Your task to perform on an android device: Open location settings Image 0: 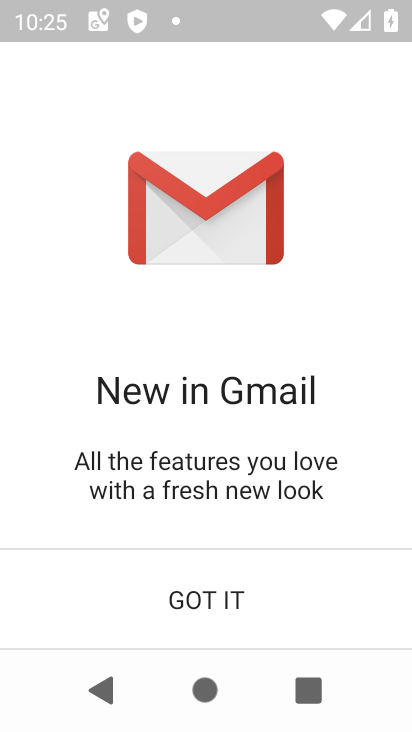
Step 0: press back button
Your task to perform on an android device: Open location settings Image 1: 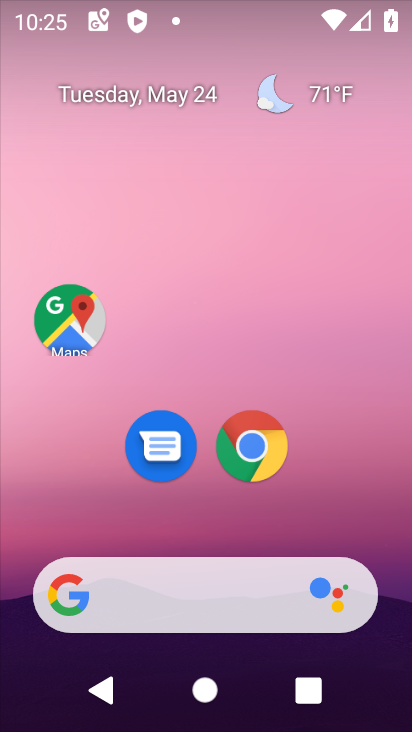
Step 1: drag from (335, 509) to (205, 183)
Your task to perform on an android device: Open location settings Image 2: 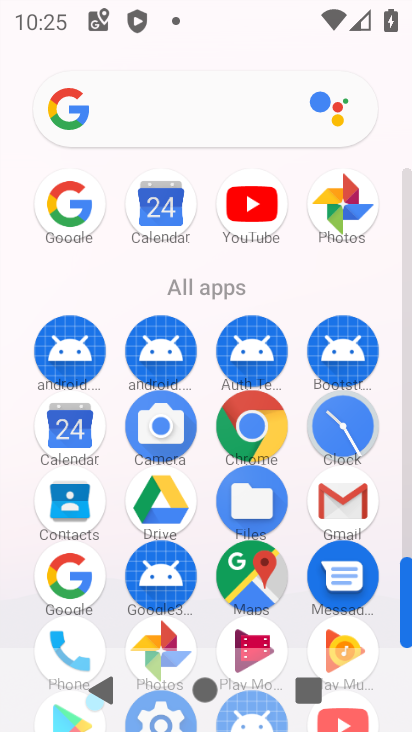
Step 2: drag from (304, 551) to (293, 356)
Your task to perform on an android device: Open location settings Image 3: 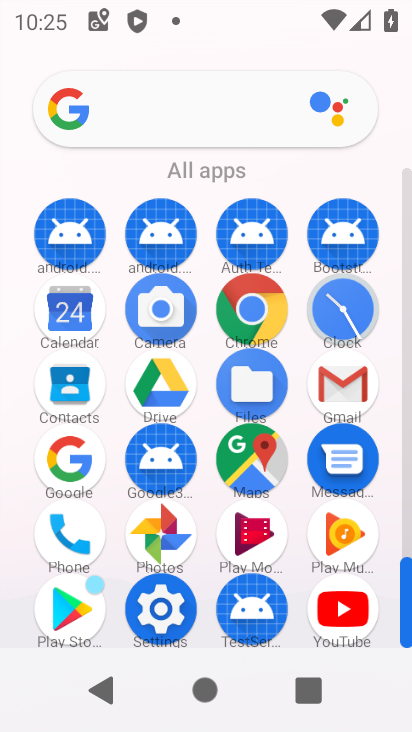
Step 3: click (161, 609)
Your task to perform on an android device: Open location settings Image 4: 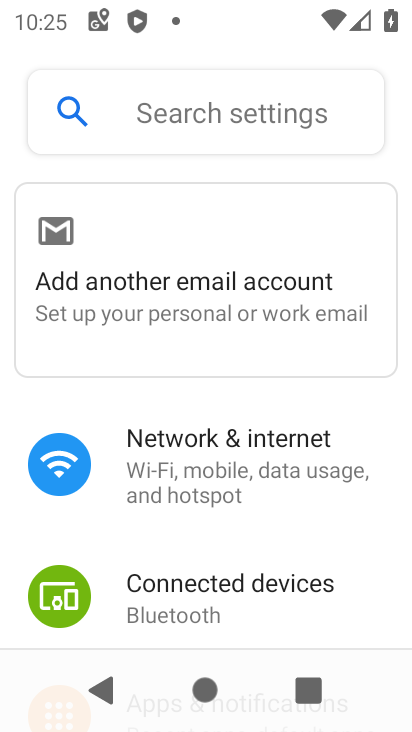
Step 4: drag from (207, 546) to (252, 446)
Your task to perform on an android device: Open location settings Image 5: 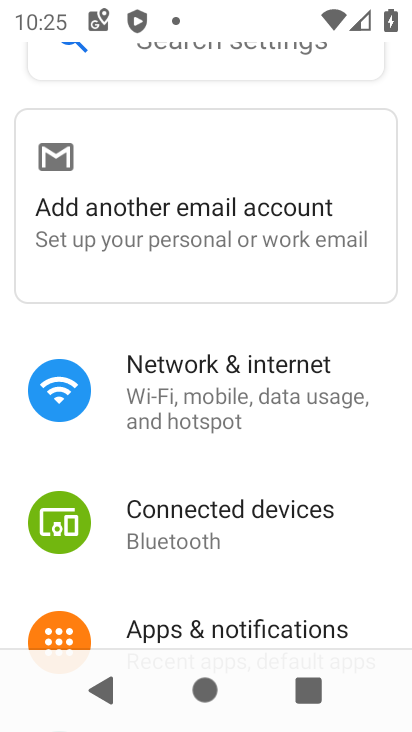
Step 5: drag from (203, 586) to (263, 484)
Your task to perform on an android device: Open location settings Image 6: 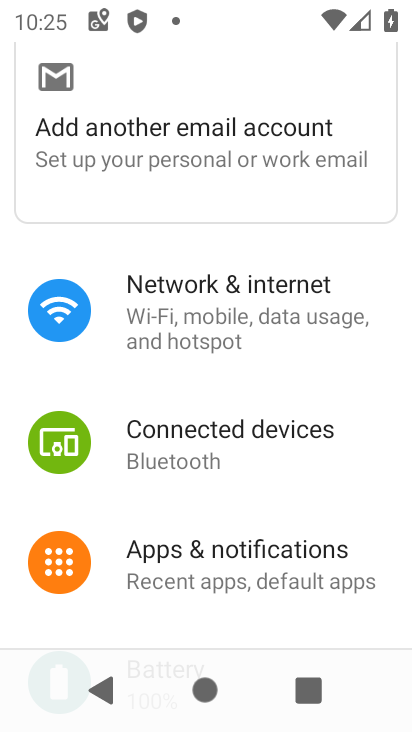
Step 6: drag from (173, 611) to (243, 466)
Your task to perform on an android device: Open location settings Image 7: 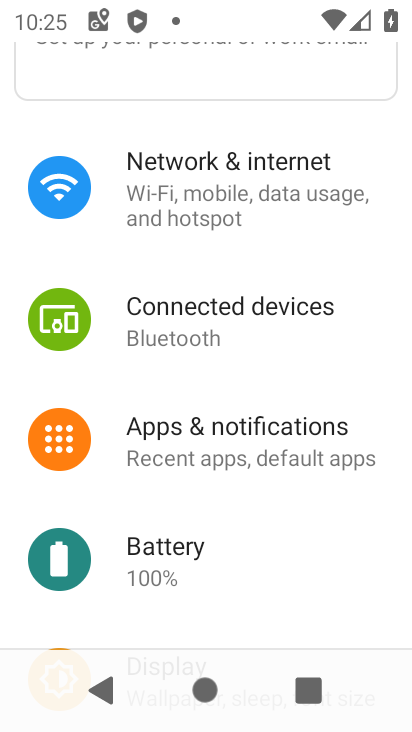
Step 7: drag from (178, 596) to (257, 463)
Your task to perform on an android device: Open location settings Image 8: 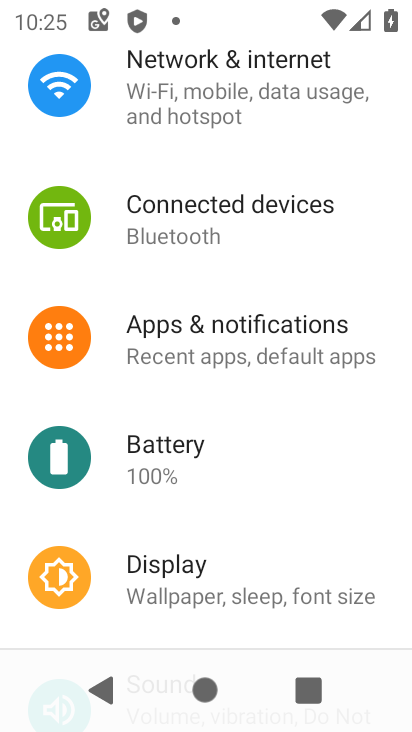
Step 8: drag from (202, 536) to (270, 429)
Your task to perform on an android device: Open location settings Image 9: 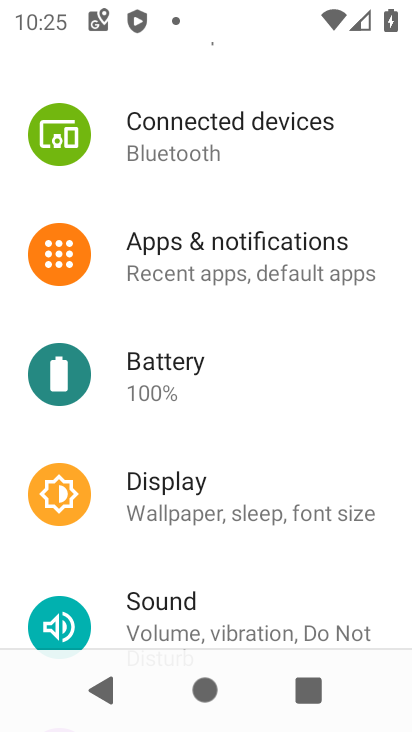
Step 9: drag from (193, 559) to (266, 463)
Your task to perform on an android device: Open location settings Image 10: 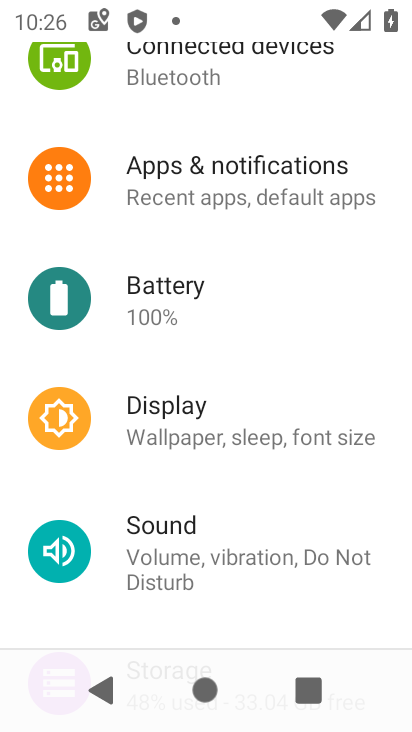
Step 10: drag from (211, 599) to (298, 482)
Your task to perform on an android device: Open location settings Image 11: 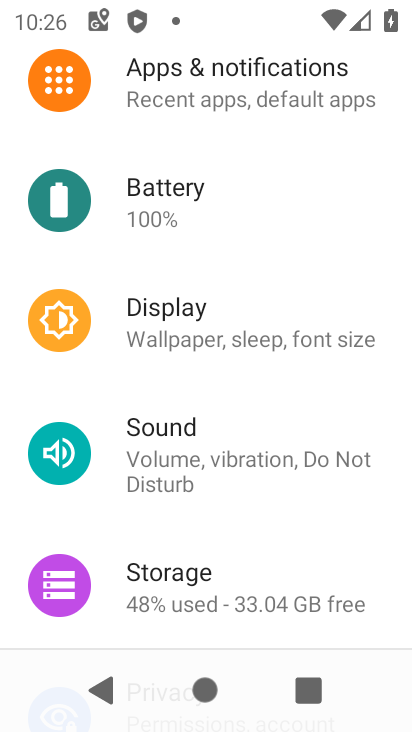
Step 11: drag from (243, 566) to (300, 420)
Your task to perform on an android device: Open location settings Image 12: 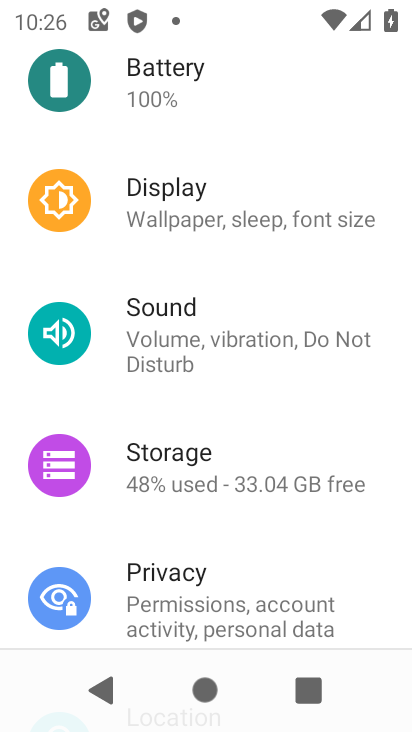
Step 12: drag from (242, 562) to (299, 443)
Your task to perform on an android device: Open location settings Image 13: 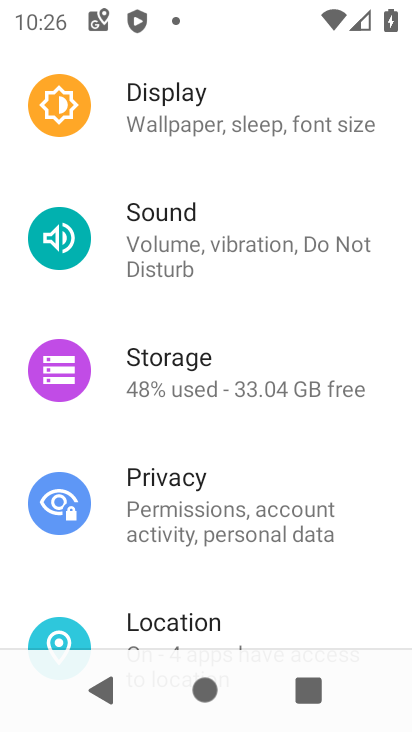
Step 13: drag from (223, 584) to (343, 433)
Your task to perform on an android device: Open location settings Image 14: 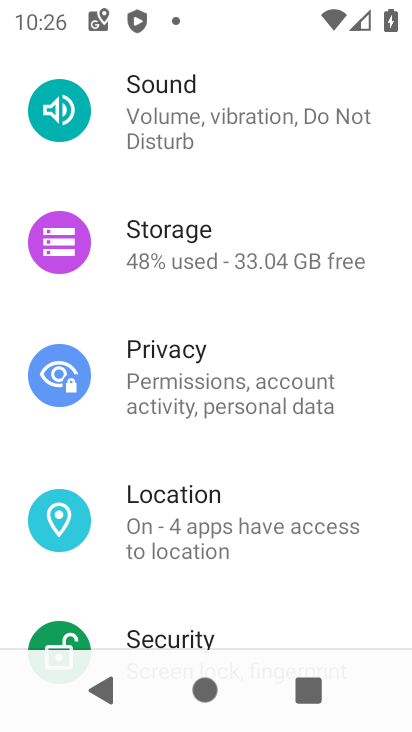
Step 14: click (196, 544)
Your task to perform on an android device: Open location settings Image 15: 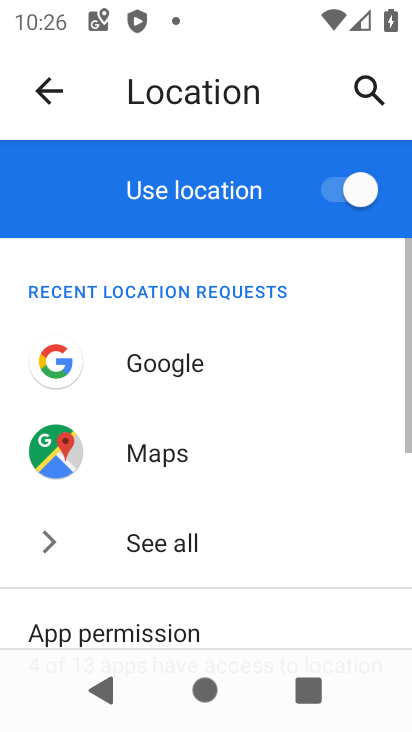
Step 15: task complete